Your task to perform on an android device: turn on javascript in the chrome app Image 0: 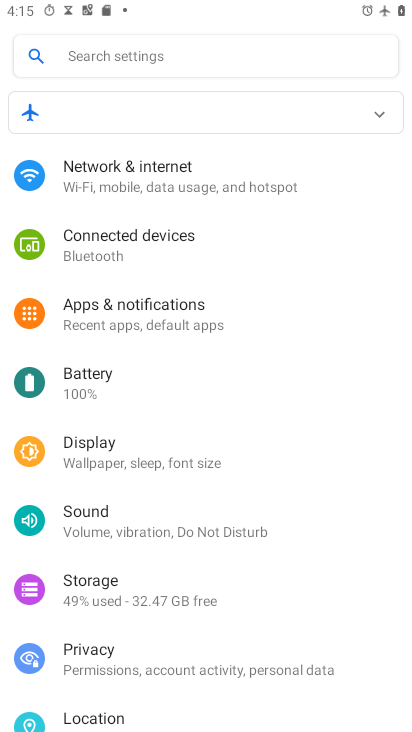
Step 0: press home button
Your task to perform on an android device: turn on javascript in the chrome app Image 1: 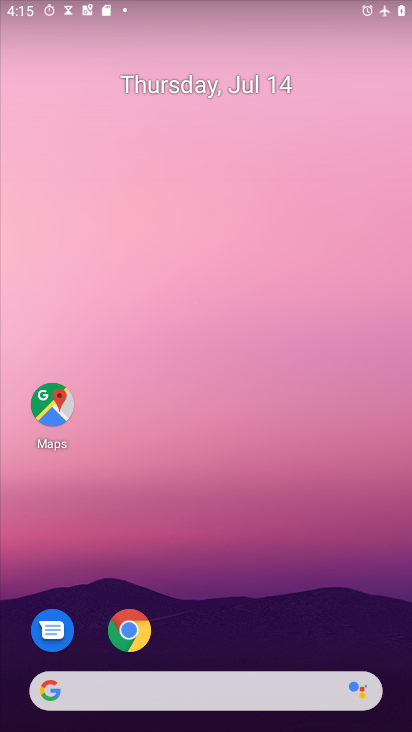
Step 1: drag from (215, 667) to (215, 289)
Your task to perform on an android device: turn on javascript in the chrome app Image 2: 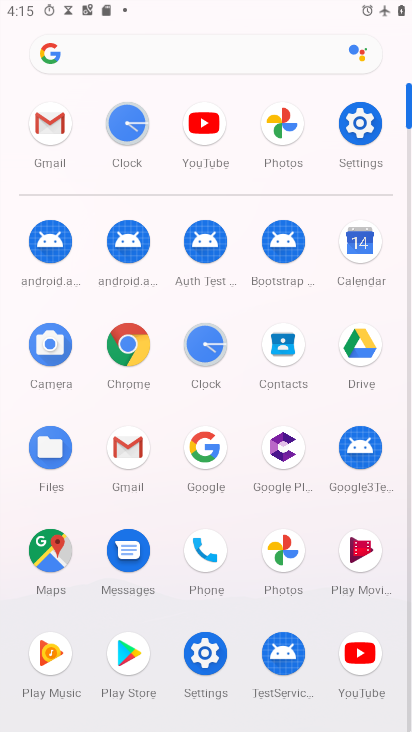
Step 2: click (127, 339)
Your task to perform on an android device: turn on javascript in the chrome app Image 3: 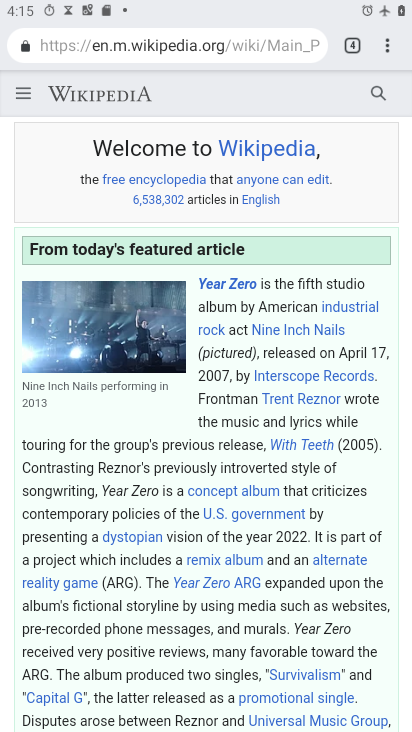
Step 3: click (389, 49)
Your task to perform on an android device: turn on javascript in the chrome app Image 4: 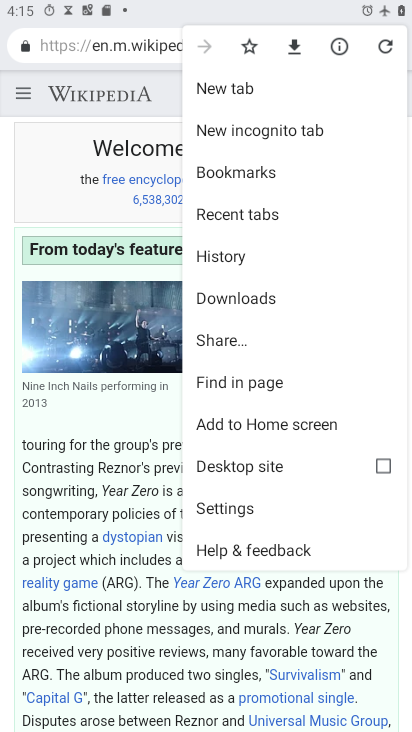
Step 4: click (207, 508)
Your task to perform on an android device: turn on javascript in the chrome app Image 5: 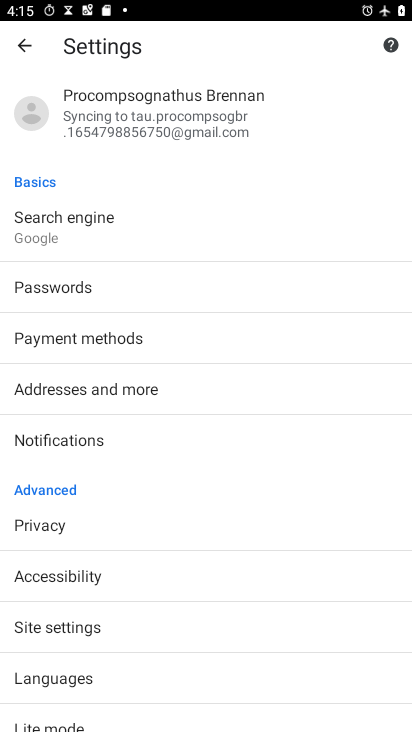
Step 5: click (27, 624)
Your task to perform on an android device: turn on javascript in the chrome app Image 6: 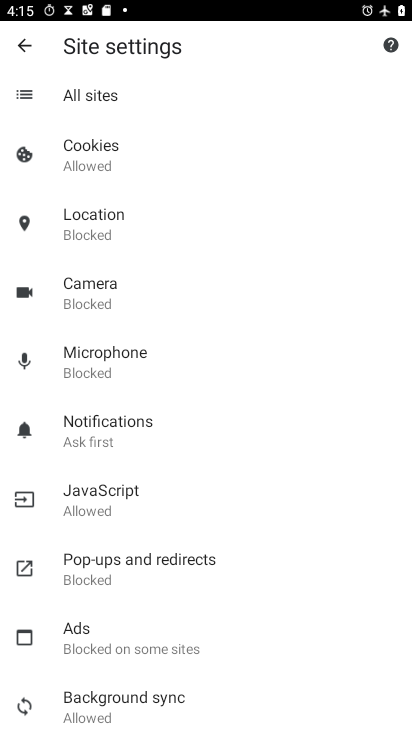
Step 6: click (95, 492)
Your task to perform on an android device: turn on javascript in the chrome app Image 7: 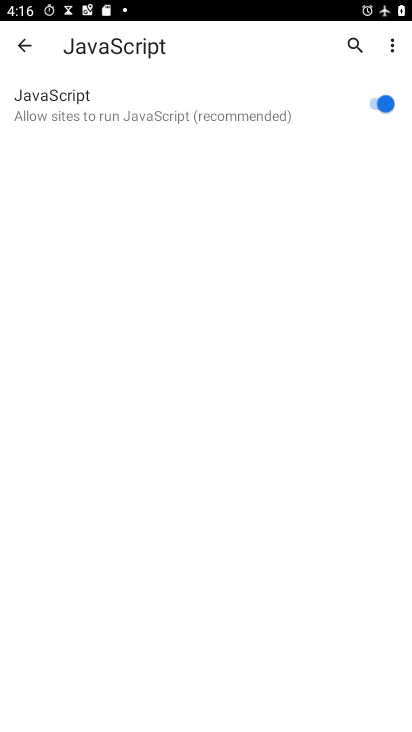
Step 7: task complete